Your task to perform on an android device: allow notifications from all sites in the chrome app Image 0: 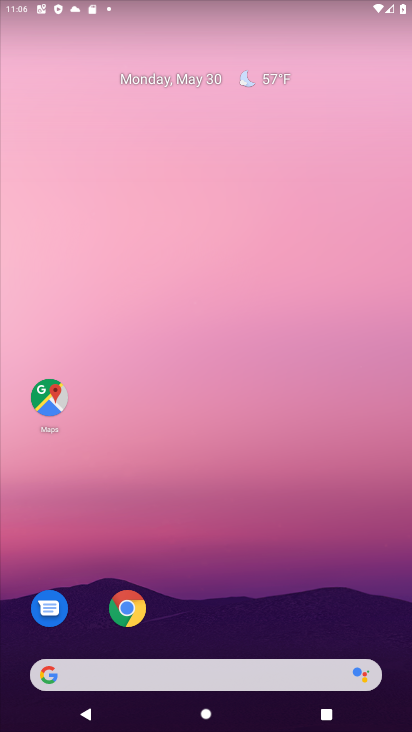
Step 0: drag from (284, 571) to (221, 15)
Your task to perform on an android device: allow notifications from all sites in the chrome app Image 1: 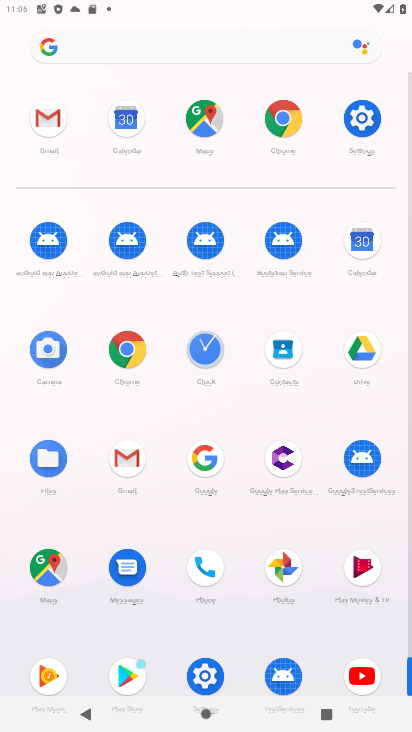
Step 1: drag from (21, 501) to (6, 211)
Your task to perform on an android device: allow notifications from all sites in the chrome app Image 2: 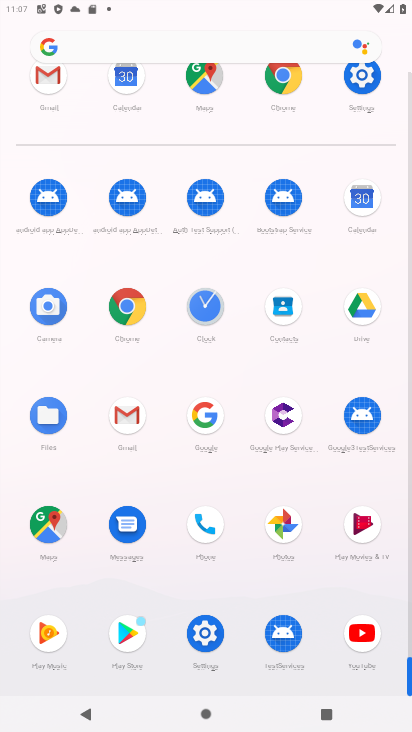
Step 2: click (127, 301)
Your task to perform on an android device: allow notifications from all sites in the chrome app Image 3: 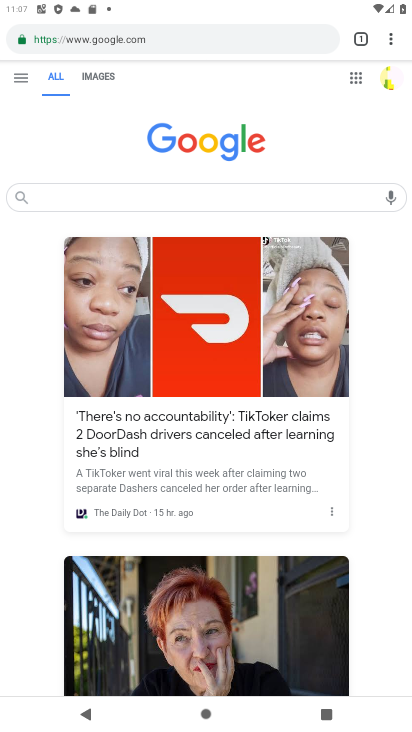
Step 3: drag from (393, 34) to (281, 473)
Your task to perform on an android device: allow notifications from all sites in the chrome app Image 4: 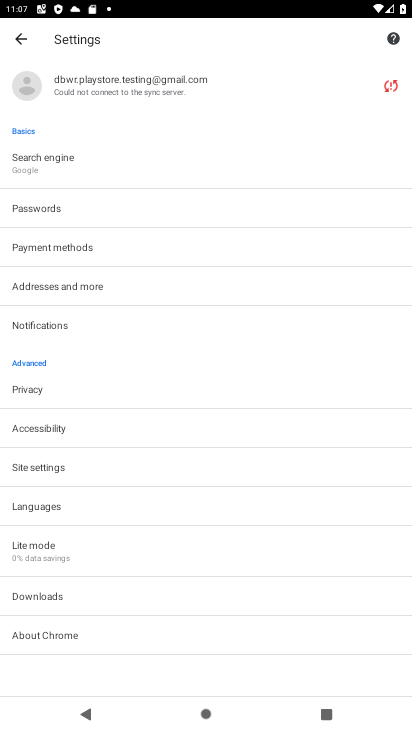
Step 4: click (67, 326)
Your task to perform on an android device: allow notifications from all sites in the chrome app Image 5: 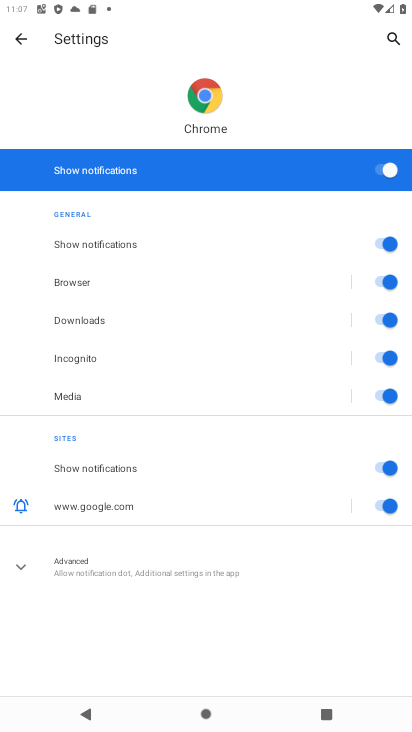
Step 5: click (23, 42)
Your task to perform on an android device: allow notifications from all sites in the chrome app Image 6: 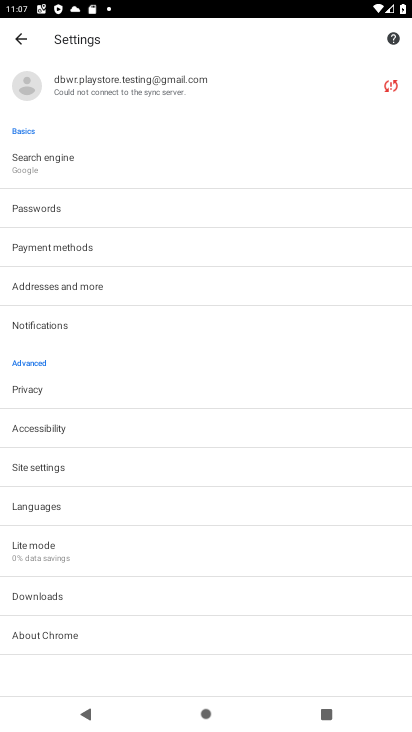
Step 6: click (47, 464)
Your task to perform on an android device: allow notifications from all sites in the chrome app Image 7: 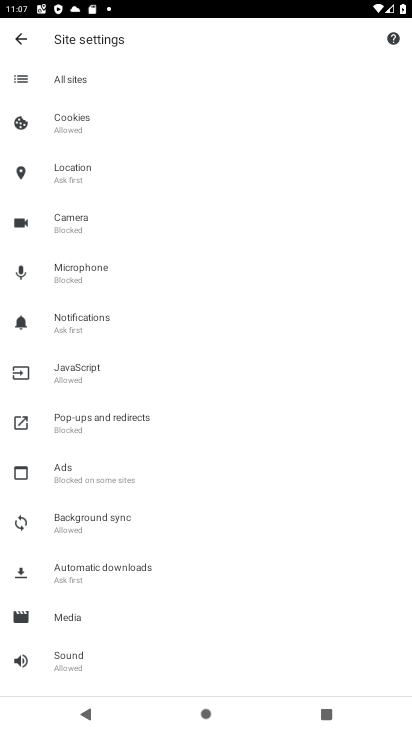
Step 7: click (75, 319)
Your task to perform on an android device: allow notifications from all sites in the chrome app Image 8: 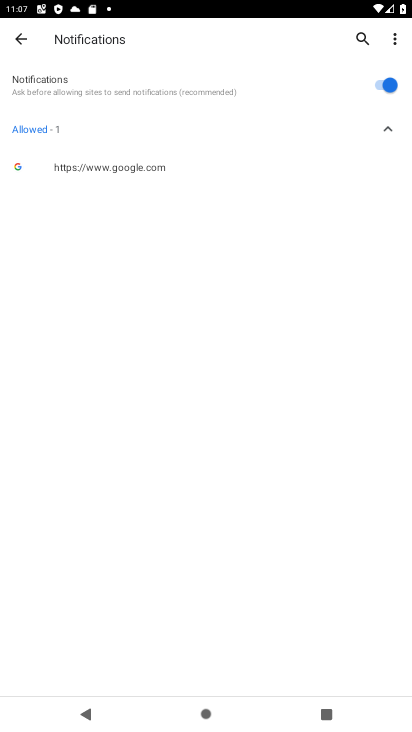
Step 8: task complete